Your task to perform on an android device: Turn off the flashlight Image 0: 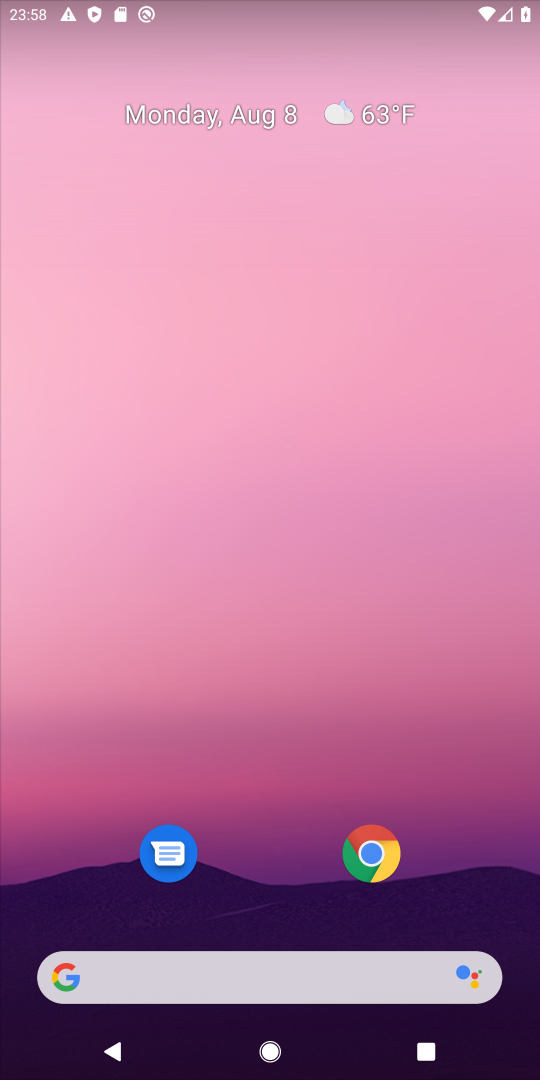
Step 0: press home button
Your task to perform on an android device: Turn off the flashlight Image 1: 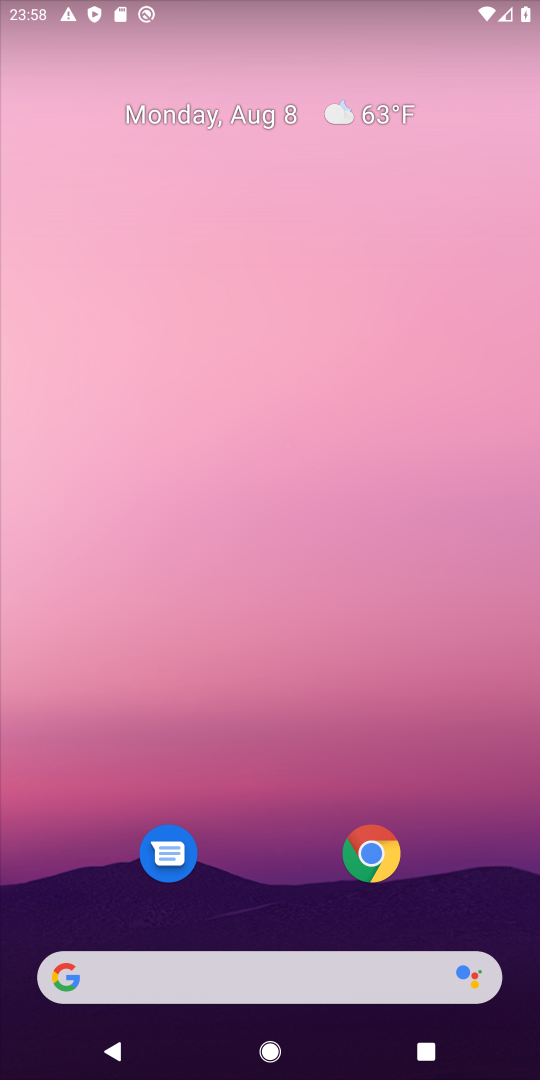
Step 1: drag from (250, 859) to (313, 2)
Your task to perform on an android device: Turn off the flashlight Image 2: 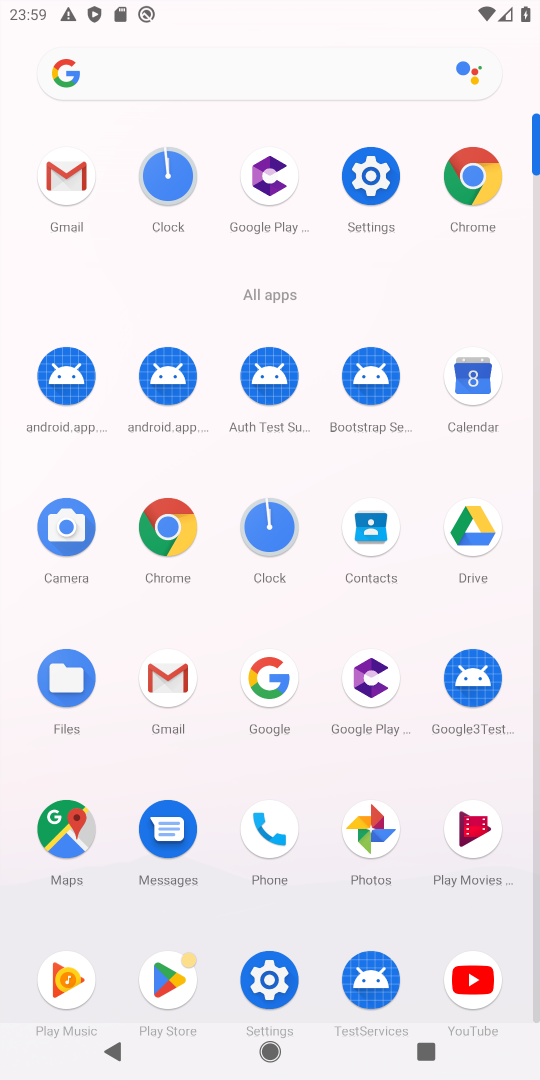
Step 2: click (264, 985)
Your task to perform on an android device: Turn off the flashlight Image 3: 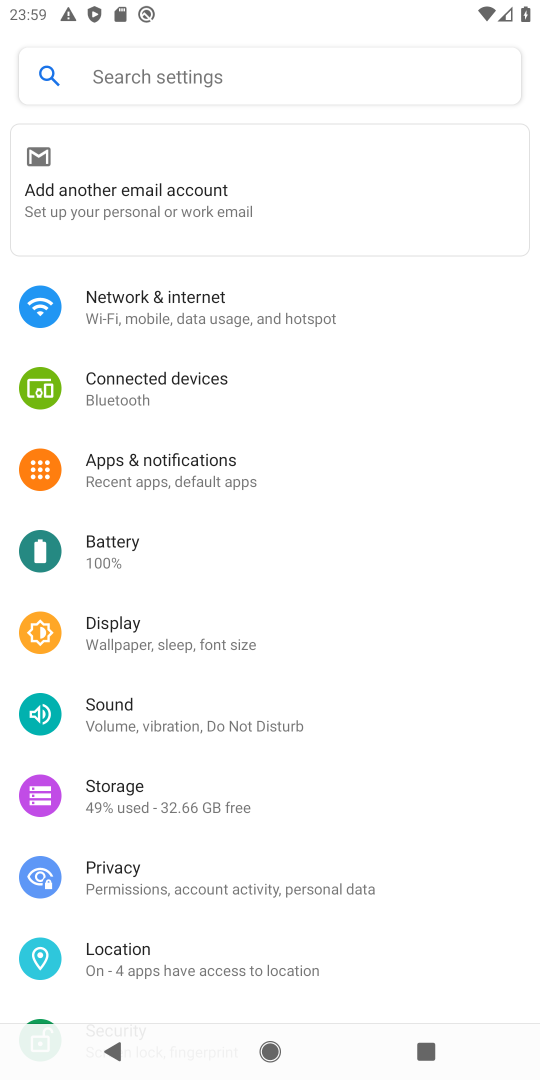
Step 3: task complete